Your task to perform on an android device: snooze an email in the gmail app Image 0: 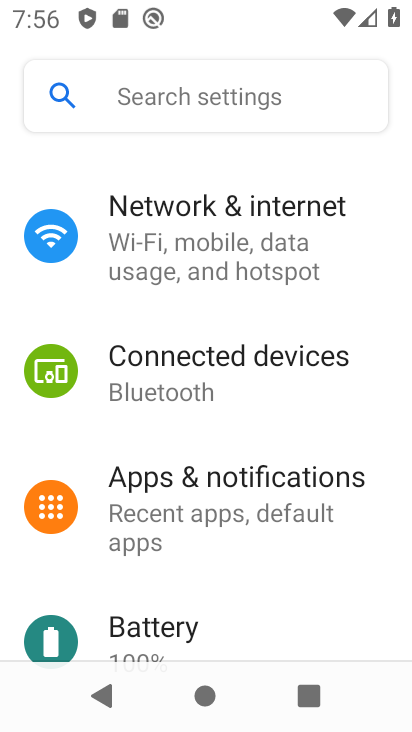
Step 0: drag from (203, 584) to (232, 135)
Your task to perform on an android device: snooze an email in the gmail app Image 1: 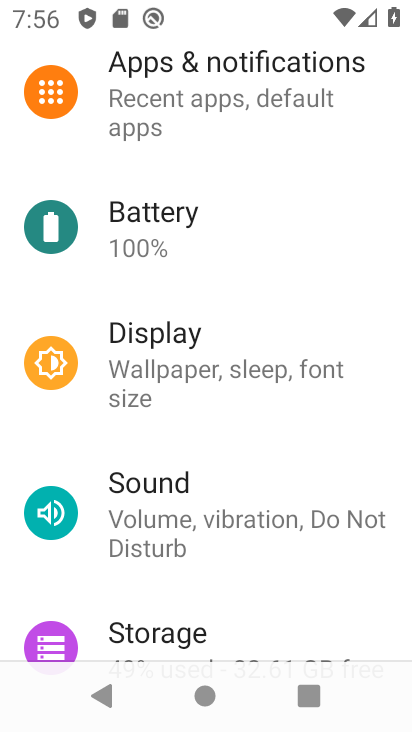
Step 1: press home button
Your task to perform on an android device: snooze an email in the gmail app Image 2: 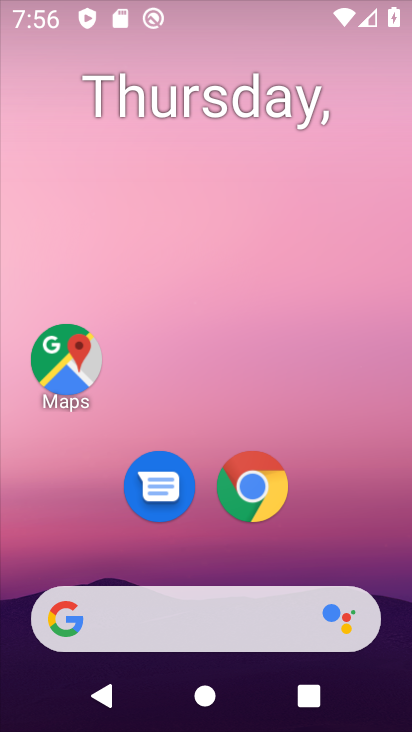
Step 2: drag from (194, 647) to (231, 84)
Your task to perform on an android device: snooze an email in the gmail app Image 3: 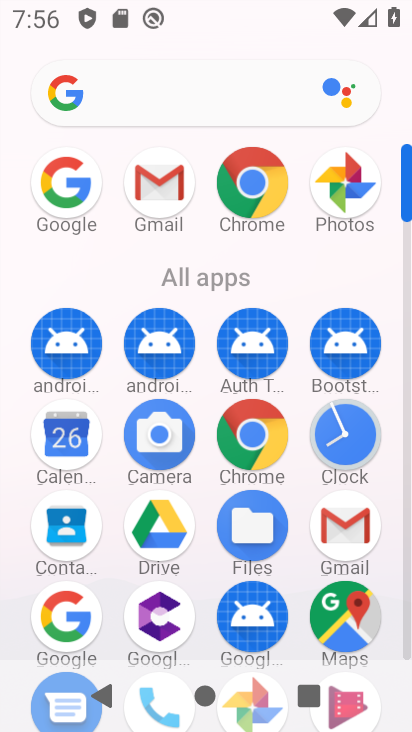
Step 3: click (351, 539)
Your task to perform on an android device: snooze an email in the gmail app Image 4: 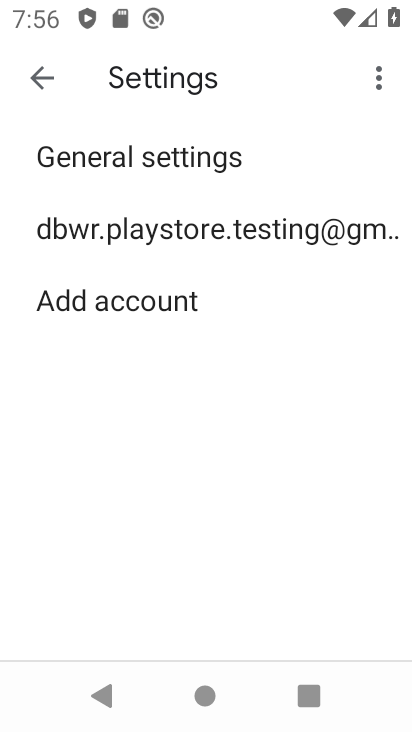
Step 4: click (38, 83)
Your task to perform on an android device: snooze an email in the gmail app Image 5: 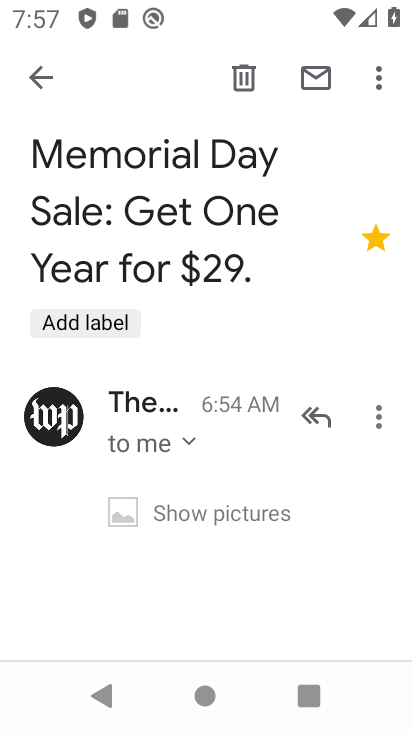
Step 5: click (53, 78)
Your task to perform on an android device: snooze an email in the gmail app Image 6: 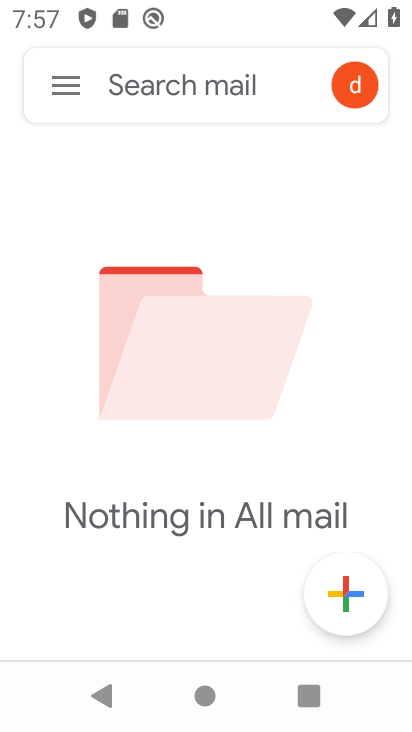
Step 6: click (82, 79)
Your task to perform on an android device: snooze an email in the gmail app Image 7: 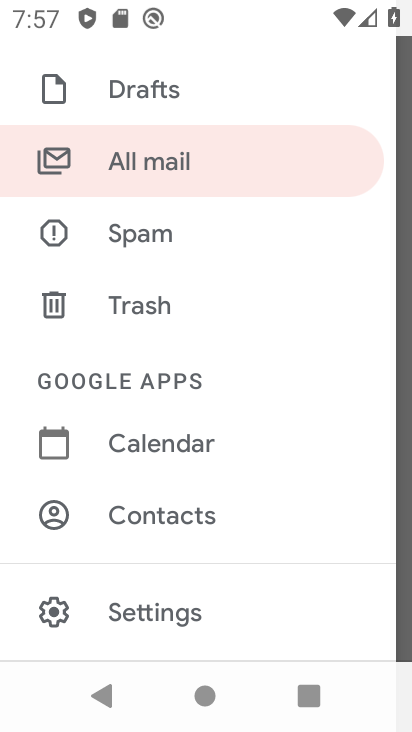
Step 7: task complete